Your task to perform on an android device: Find coffee shops on Maps Image 0: 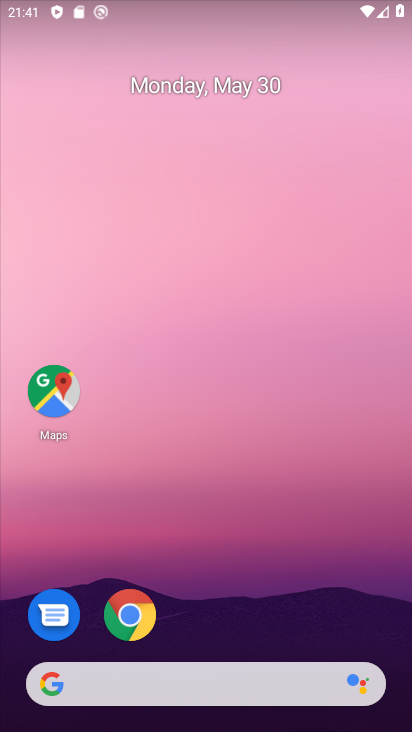
Step 0: click (47, 398)
Your task to perform on an android device: Find coffee shops on Maps Image 1: 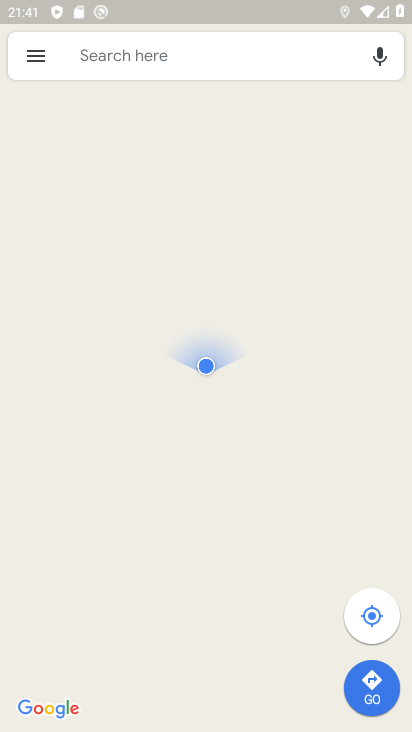
Step 1: click (131, 64)
Your task to perform on an android device: Find coffee shops on Maps Image 2: 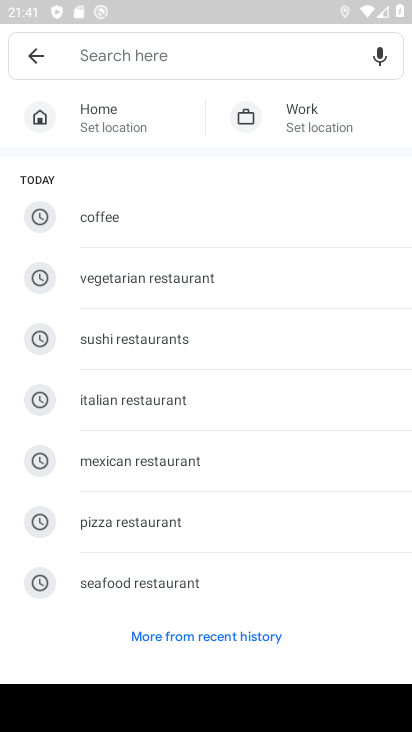
Step 2: click (144, 223)
Your task to perform on an android device: Find coffee shops on Maps Image 3: 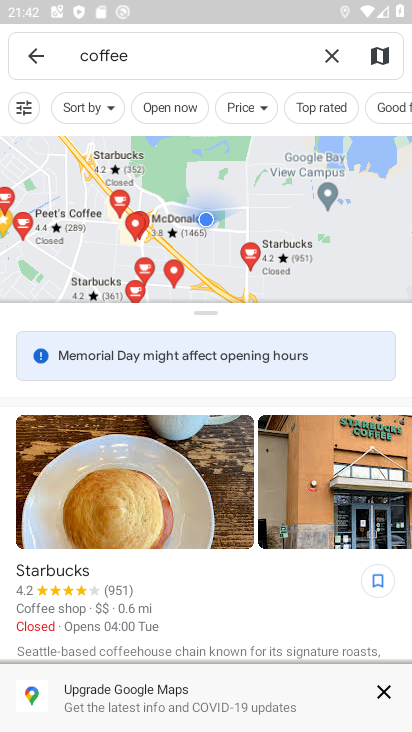
Step 3: task complete